Your task to perform on an android device: turn off airplane mode Image 0: 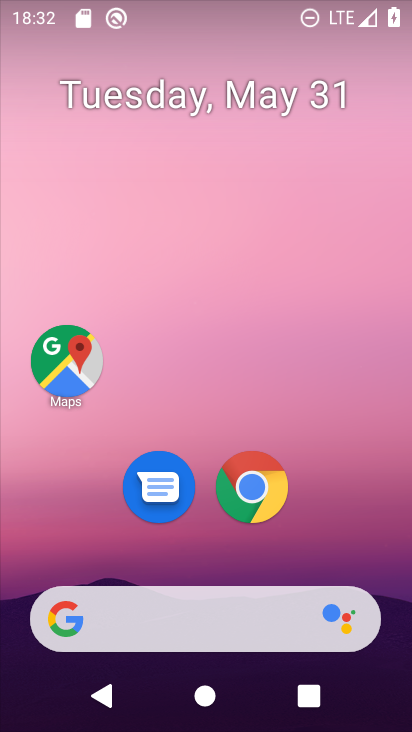
Step 0: drag from (339, 537) to (209, 87)
Your task to perform on an android device: turn off airplane mode Image 1: 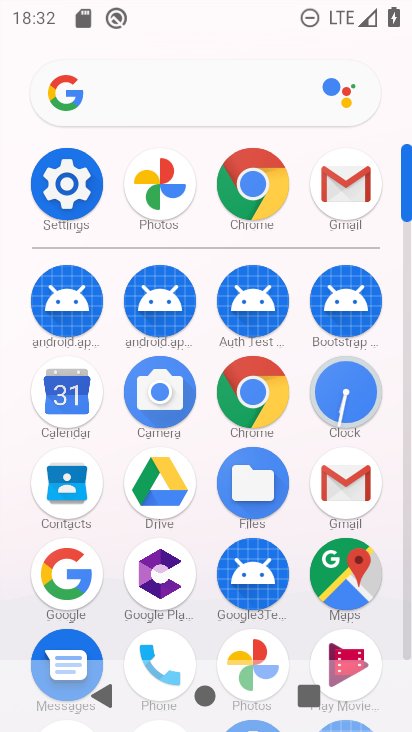
Step 1: click (64, 181)
Your task to perform on an android device: turn off airplane mode Image 2: 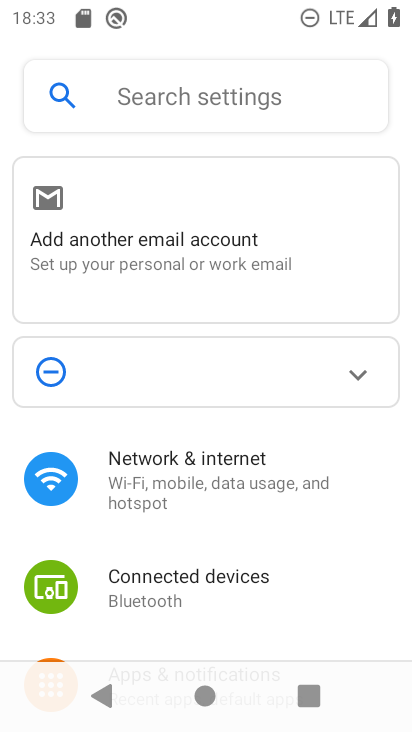
Step 2: click (174, 463)
Your task to perform on an android device: turn off airplane mode Image 3: 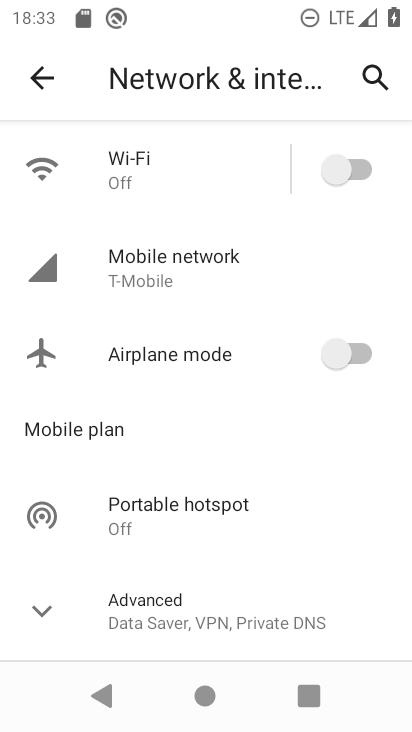
Step 3: task complete